Your task to perform on an android device: toggle improve location accuracy Image 0: 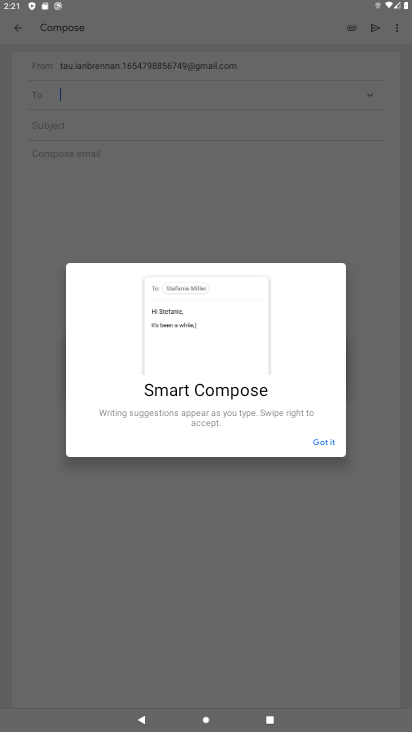
Step 0: press home button
Your task to perform on an android device: toggle improve location accuracy Image 1: 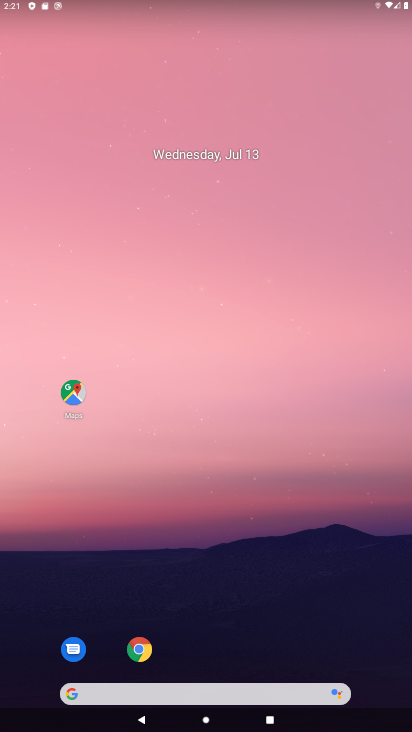
Step 1: drag from (191, 589) to (167, 6)
Your task to perform on an android device: toggle improve location accuracy Image 2: 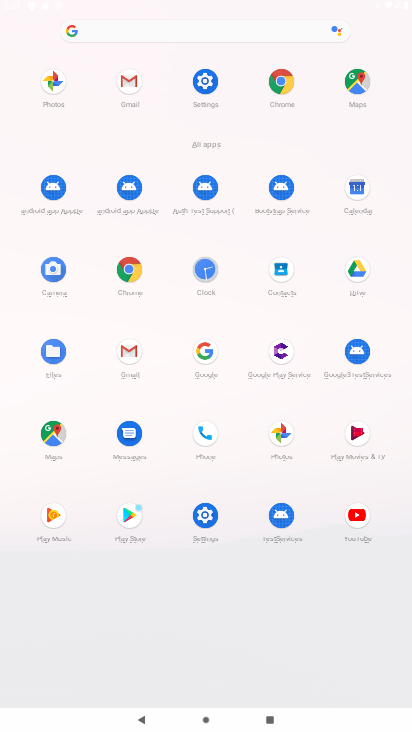
Step 2: click (204, 80)
Your task to perform on an android device: toggle improve location accuracy Image 3: 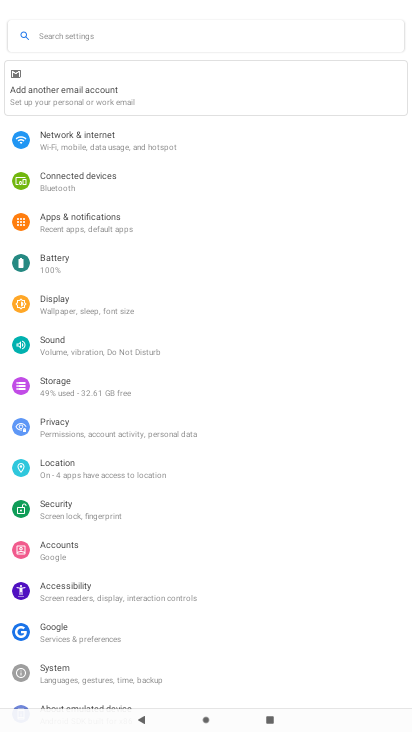
Step 3: click (63, 460)
Your task to perform on an android device: toggle improve location accuracy Image 4: 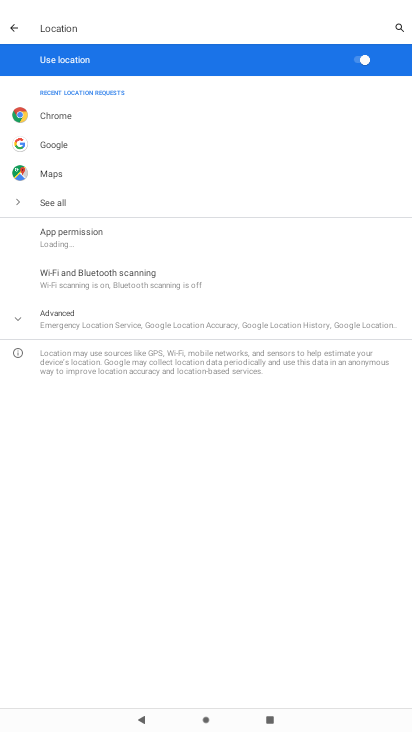
Step 4: click (65, 309)
Your task to perform on an android device: toggle improve location accuracy Image 5: 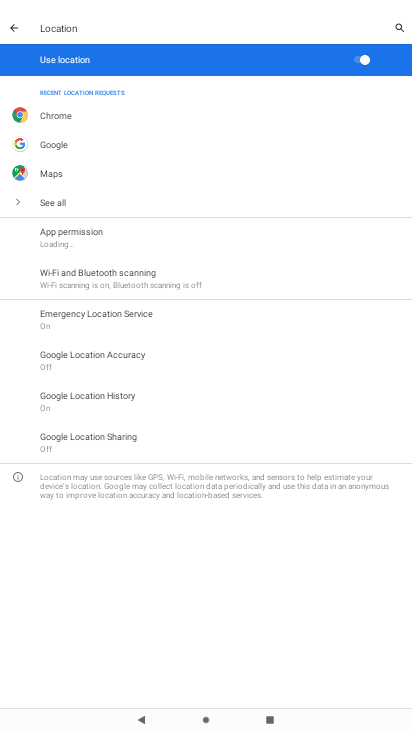
Step 5: click (96, 349)
Your task to perform on an android device: toggle improve location accuracy Image 6: 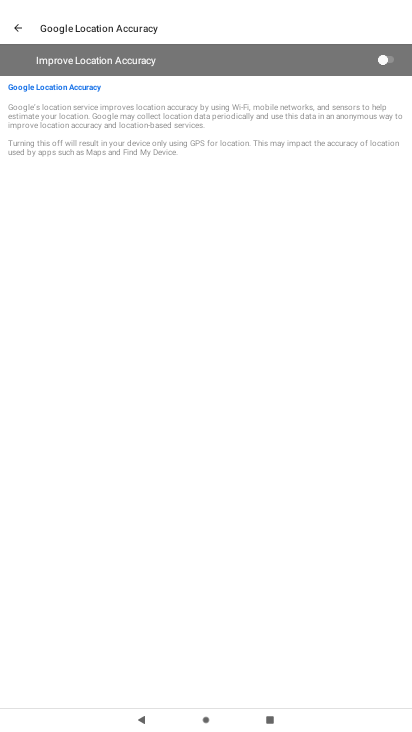
Step 6: click (385, 58)
Your task to perform on an android device: toggle improve location accuracy Image 7: 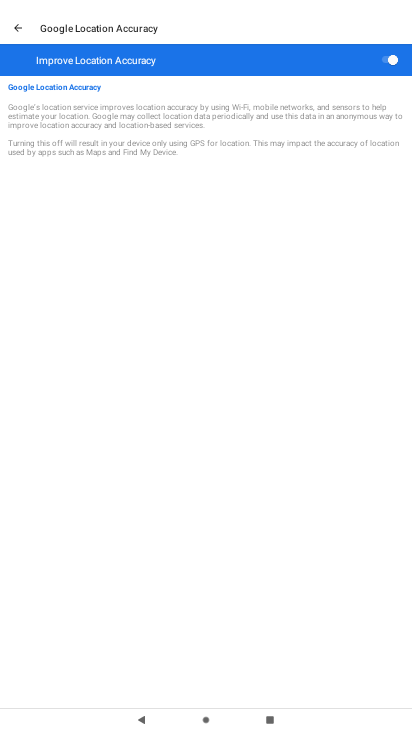
Step 7: task complete